Your task to perform on an android device: Go to Android settings Image 0: 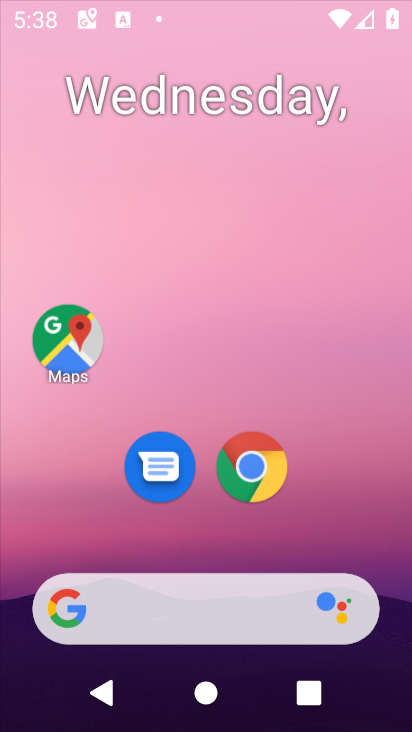
Step 0: click (234, 10)
Your task to perform on an android device: Go to Android settings Image 1: 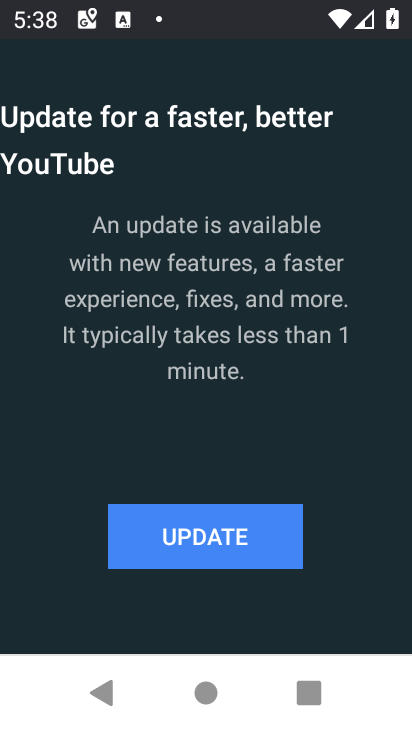
Step 1: press home button
Your task to perform on an android device: Go to Android settings Image 2: 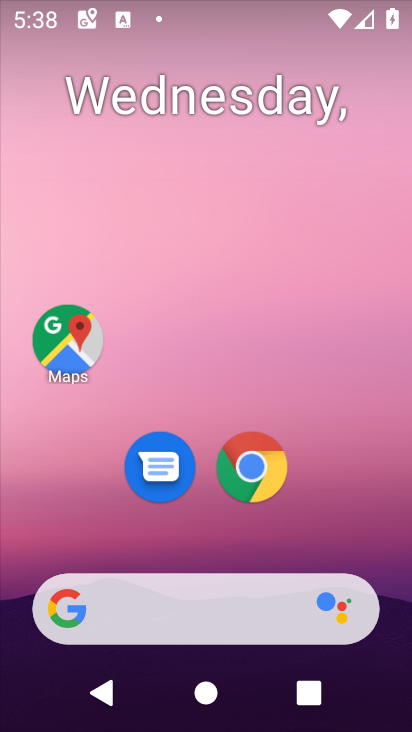
Step 2: drag from (368, 522) to (240, 30)
Your task to perform on an android device: Go to Android settings Image 3: 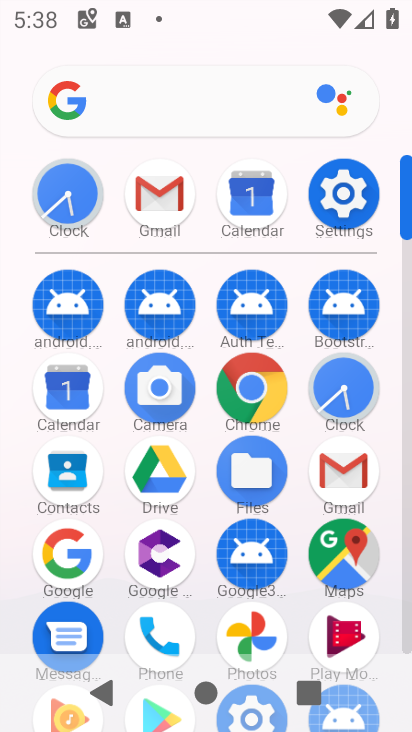
Step 3: click (342, 194)
Your task to perform on an android device: Go to Android settings Image 4: 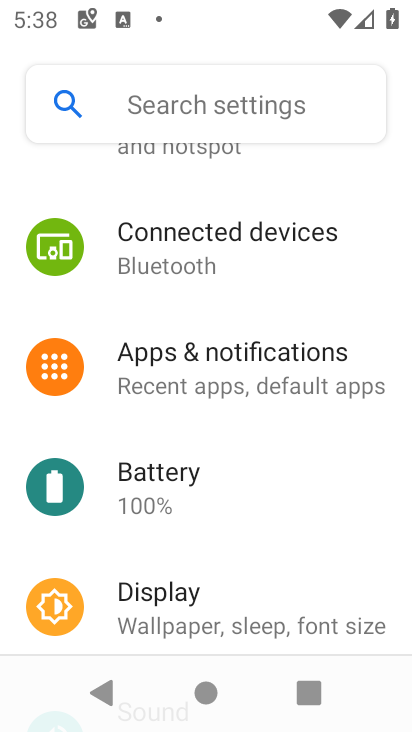
Step 4: drag from (260, 543) to (249, 1)
Your task to perform on an android device: Go to Android settings Image 5: 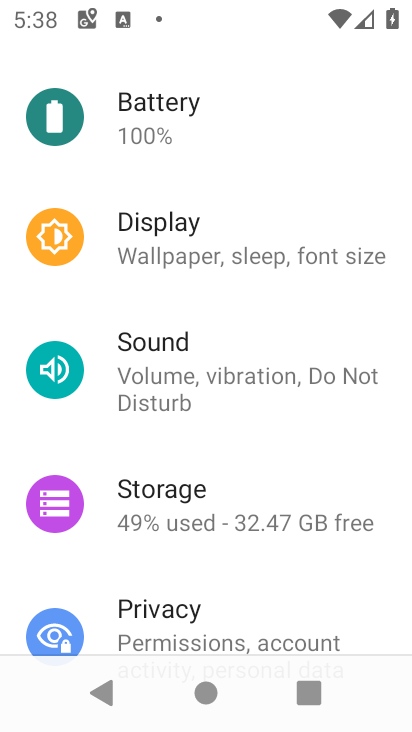
Step 5: drag from (276, 603) to (202, 38)
Your task to perform on an android device: Go to Android settings Image 6: 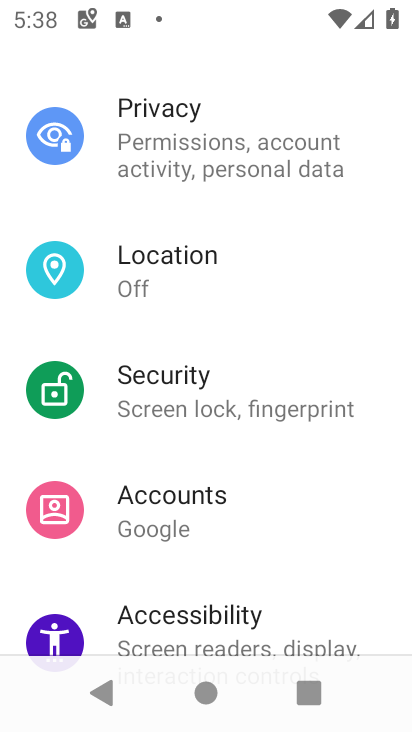
Step 6: drag from (278, 580) to (232, 179)
Your task to perform on an android device: Go to Android settings Image 7: 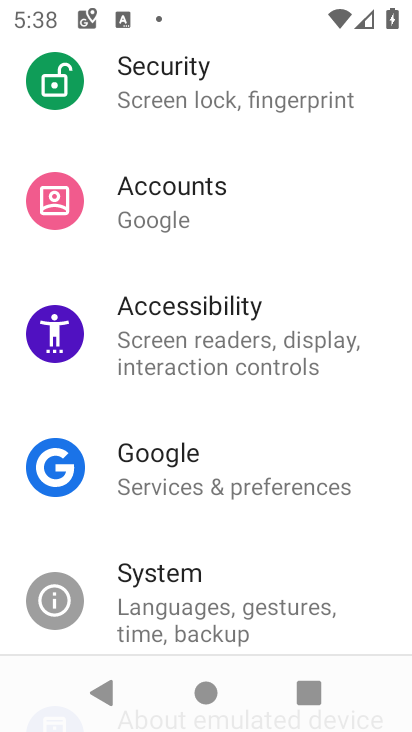
Step 7: drag from (228, 596) to (200, 239)
Your task to perform on an android device: Go to Android settings Image 8: 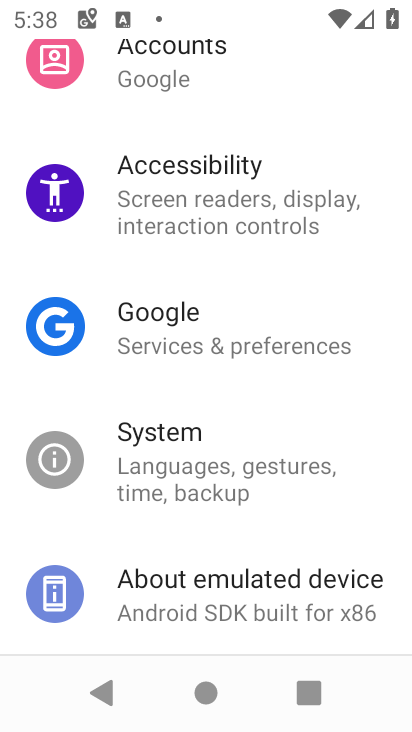
Step 8: click (200, 581)
Your task to perform on an android device: Go to Android settings Image 9: 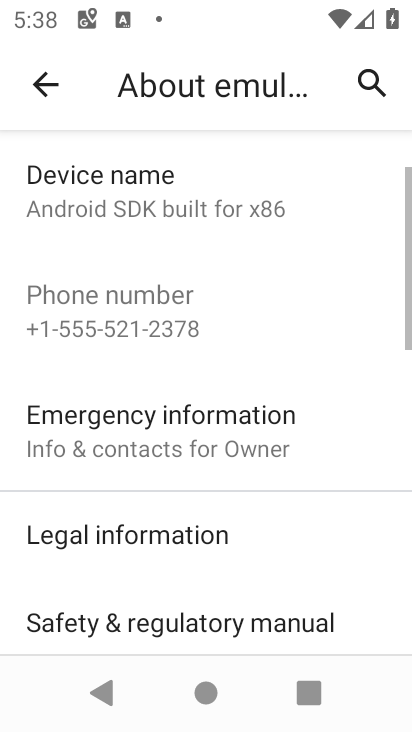
Step 9: drag from (250, 434) to (238, 175)
Your task to perform on an android device: Go to Android settings Image 10: 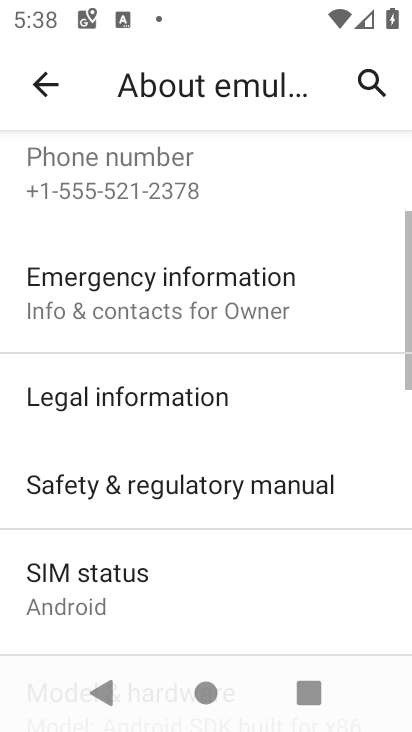
Step 10: drag from (223, 555) to (222, 139)
Your task to perform on an android device: Go to Android settings Image 11: 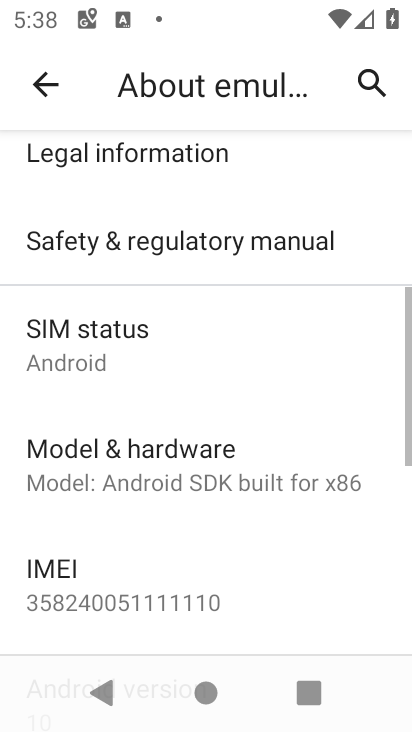
Step 11: drag from (170, 602) to (218, 191)
Your task to perform on an android device: Go to Android settings Image 12: 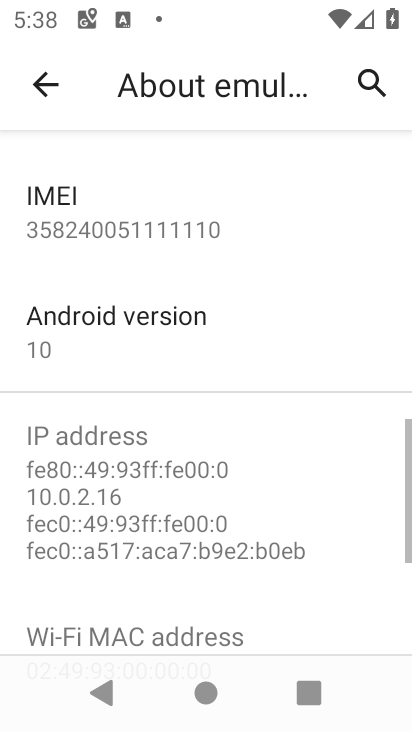
Step 12: click (181, 310)
Your task to perform on an android device: Go to Android settings Image 13: 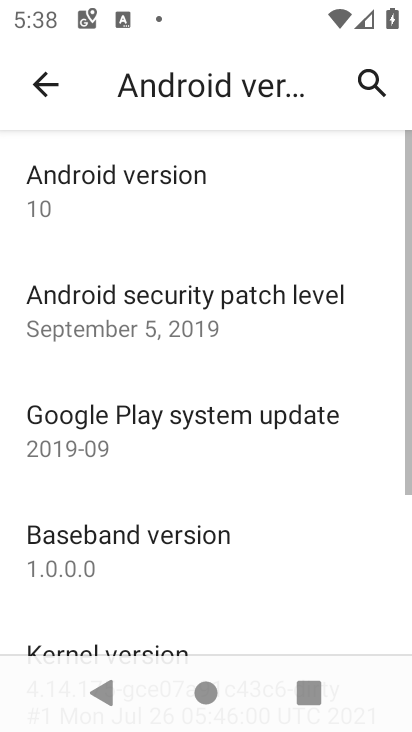
Step 13: task complete